Your task to perform on an android device: Open Yahoo.com Image 0: 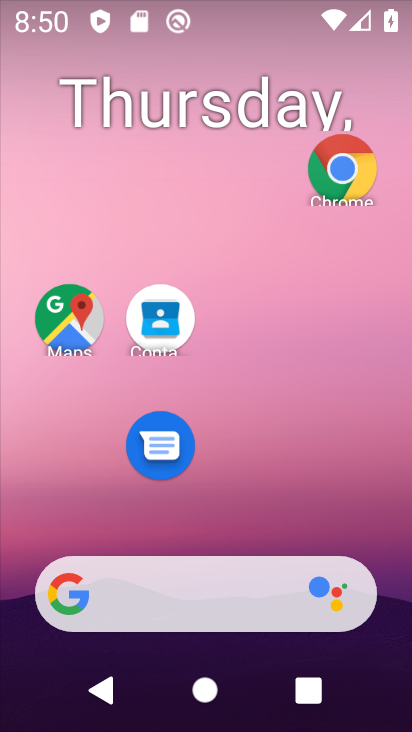
Step 0: press home button
Your task to perform on an android device: Open Yahoo.com Image 1: 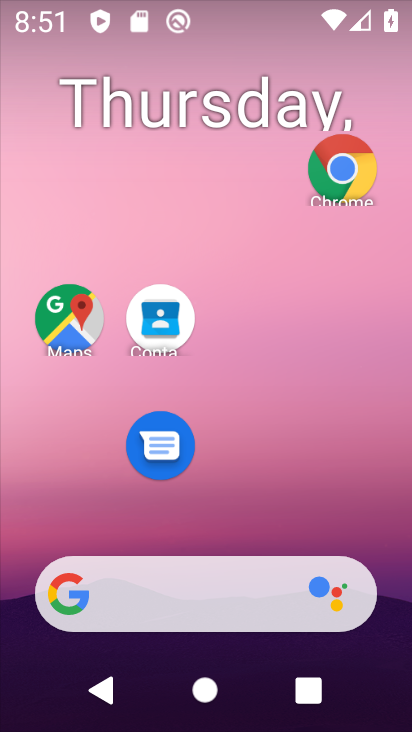
Step 1: drag from (233, 642) to (264, 174)
Your task to perform on an android device: Open Yahoo.com Image 2: 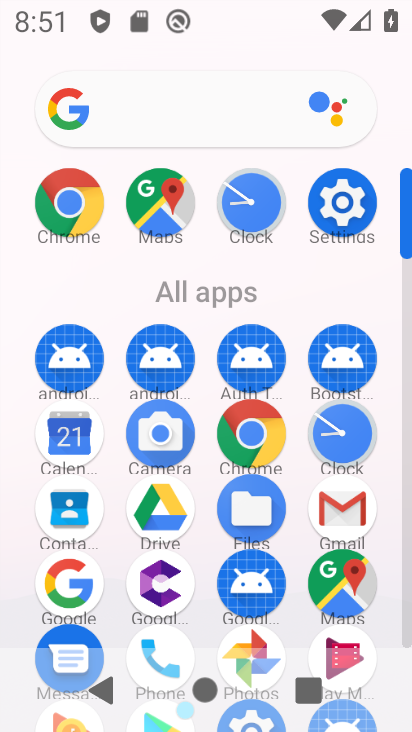
Step 2: click (71, 190)
Your task to perform on an android device: Open Yahoo.com Image 3: 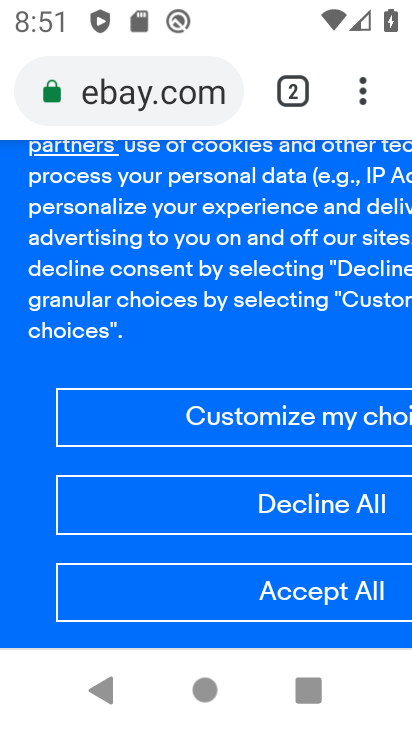
Step 3: click (157, 89)
Your task to perform on an android device: Open Yahoo.com Image 4: 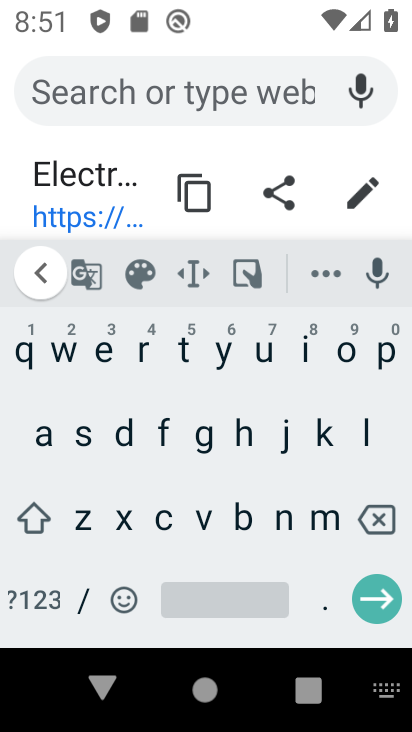
Step 4: click (220, 349)
Your task to perform on an android device: Open Yahoo.com Image 5: 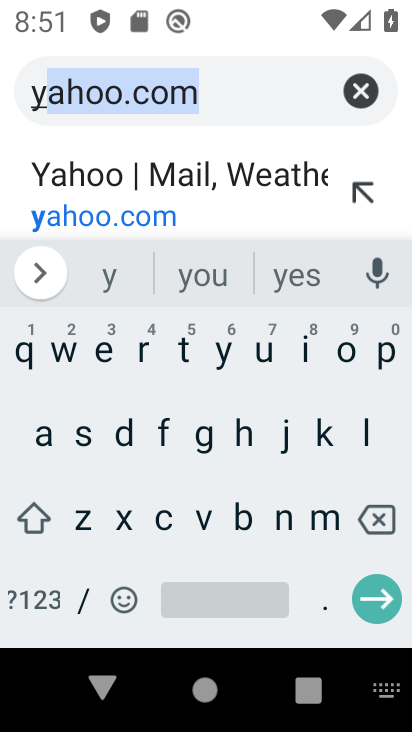
Step 5: click (241, 103)
Your task to perform on an android device: Open Yahoo.com Image 6: 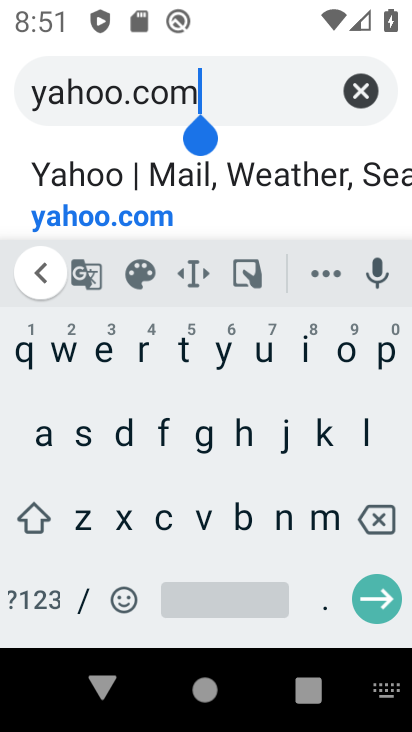
Step 6: click (379, 595)
Your task to perform on an android device: Open Yahoo.com Image 7: 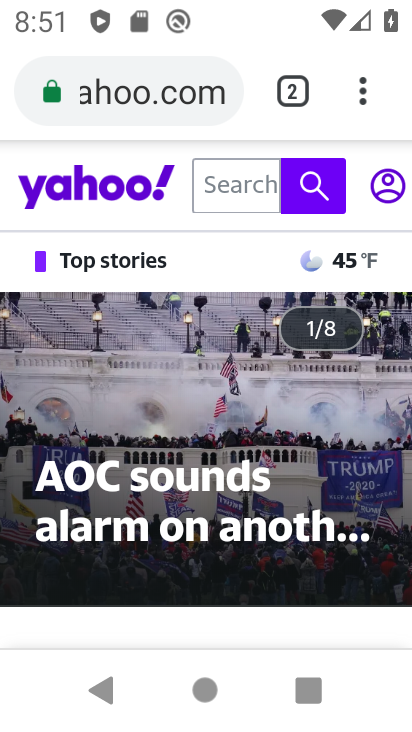
Step 7: task complete